Your task to perform on an android device: Search for pizza restaurants on Maps Image 0: 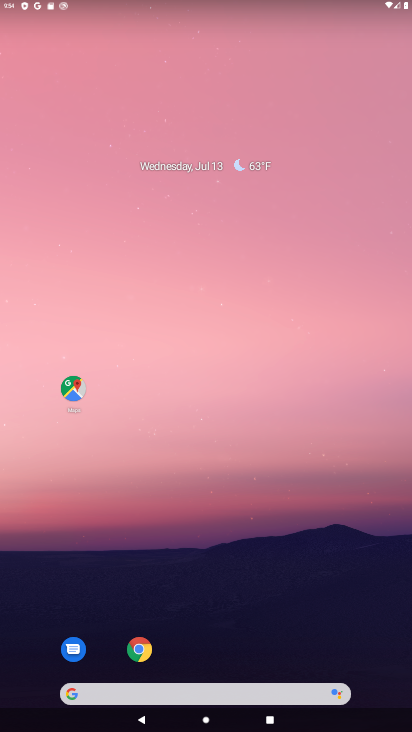
Step 0: press home button
Your task to perform on an android device: Search for pizza restaurants on Maps Image 1: 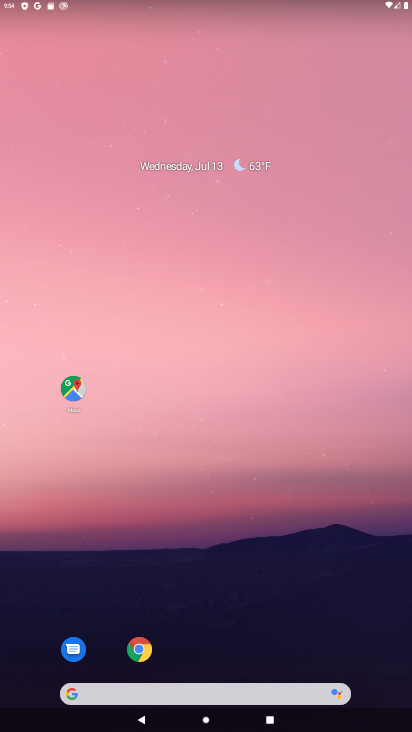
Step 1: press home button
Your task to perform on an android device: Search for pizza restaurants on Maps Image 2: 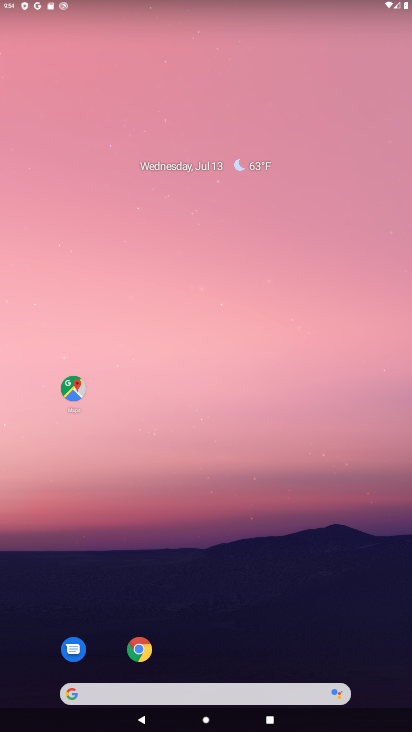
Step 2: drag from (307, 620) to (336, 49)
Your task to perform on an android device: Search for pizza restaurants on Maps Image 3: 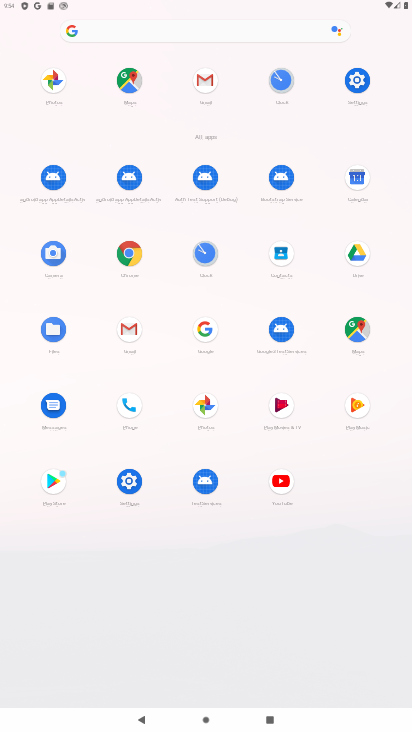
Step 3: click (352, 352)
Your task to perform on an android device: Search for pizza restaurants on Maps Image 4: 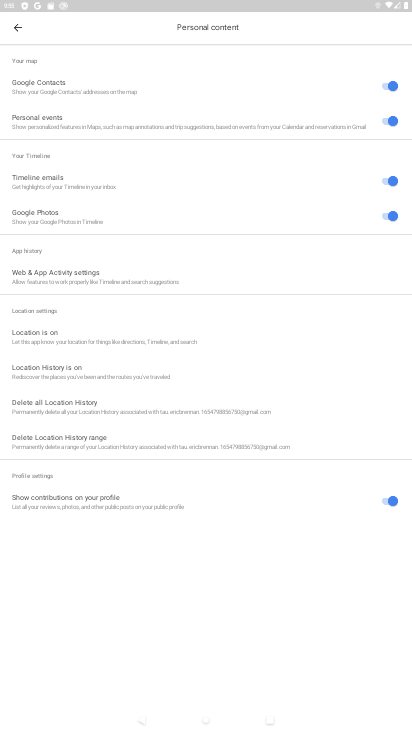
Step 4: click (18, 26)
Your task to perform on an android device: Search for pizza restaurants on Maps Image 5: 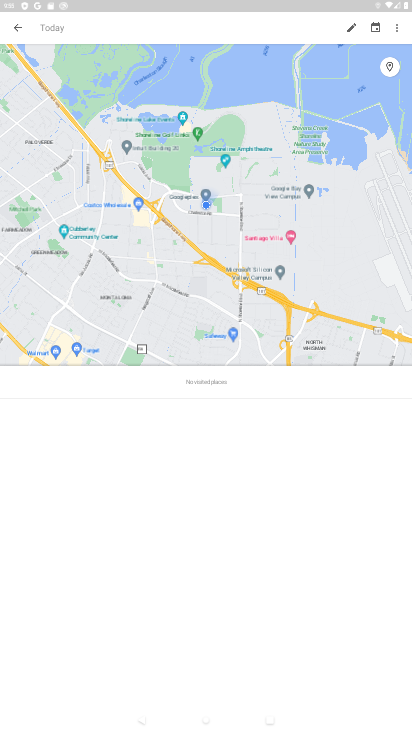
Step 5: click (18, 26)
Your task to perform on an android device: Search for pizza restaurants on Maps Image 6: 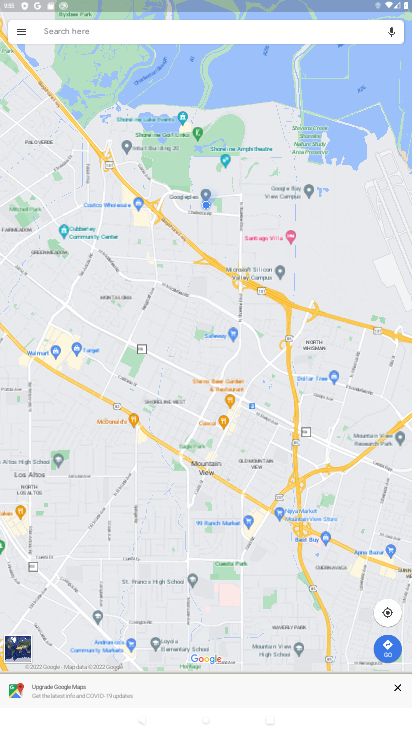
Step 6: click (255, 30)
Your task to perform on an android device: Search for pizza restaurants on Maps Image 7: 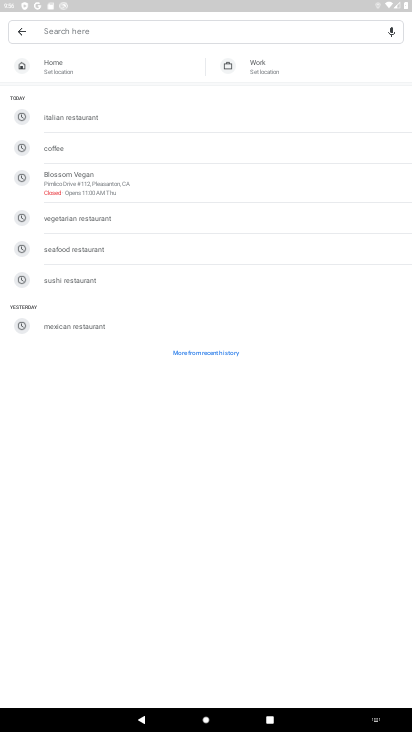
Step 7: type " pizza restaurants "
Your task to perform on an android device: Search for pizza restaurants on Maps Image 8: 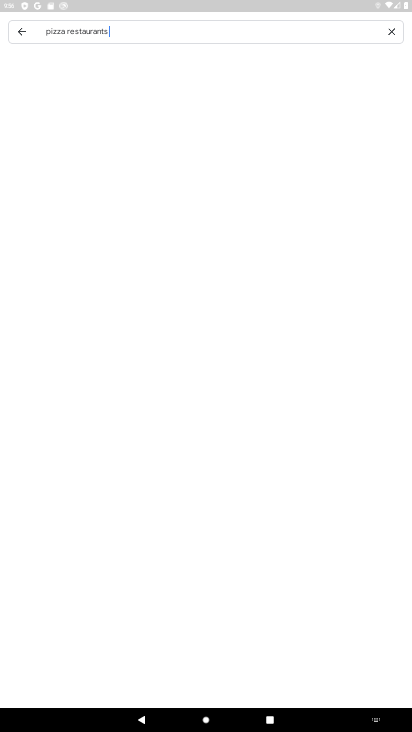
Step 8: type ""
Your task to perform on an android device: Search for pizza restaurants on Maps Image 9: 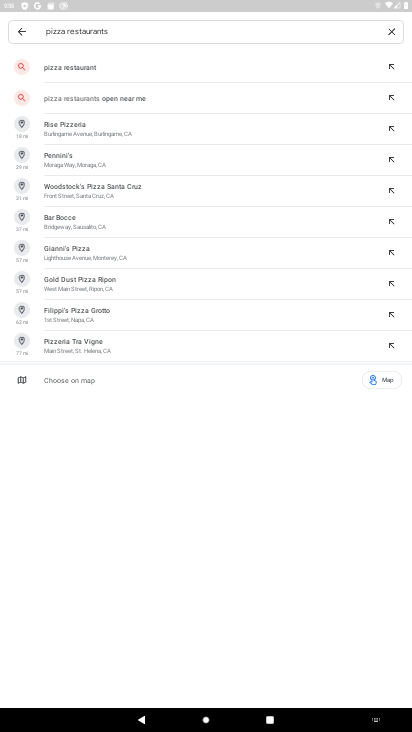
Step 9: click (206, 62)
Your task to perform on an android device: Search for pizza restaurants on Maps Image 10: 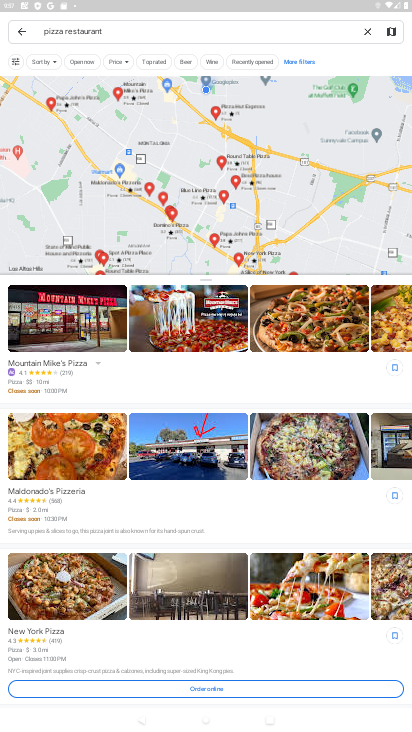
Step 10: task complete